Your task to perform on an android device: Go to notification settings Image 0: 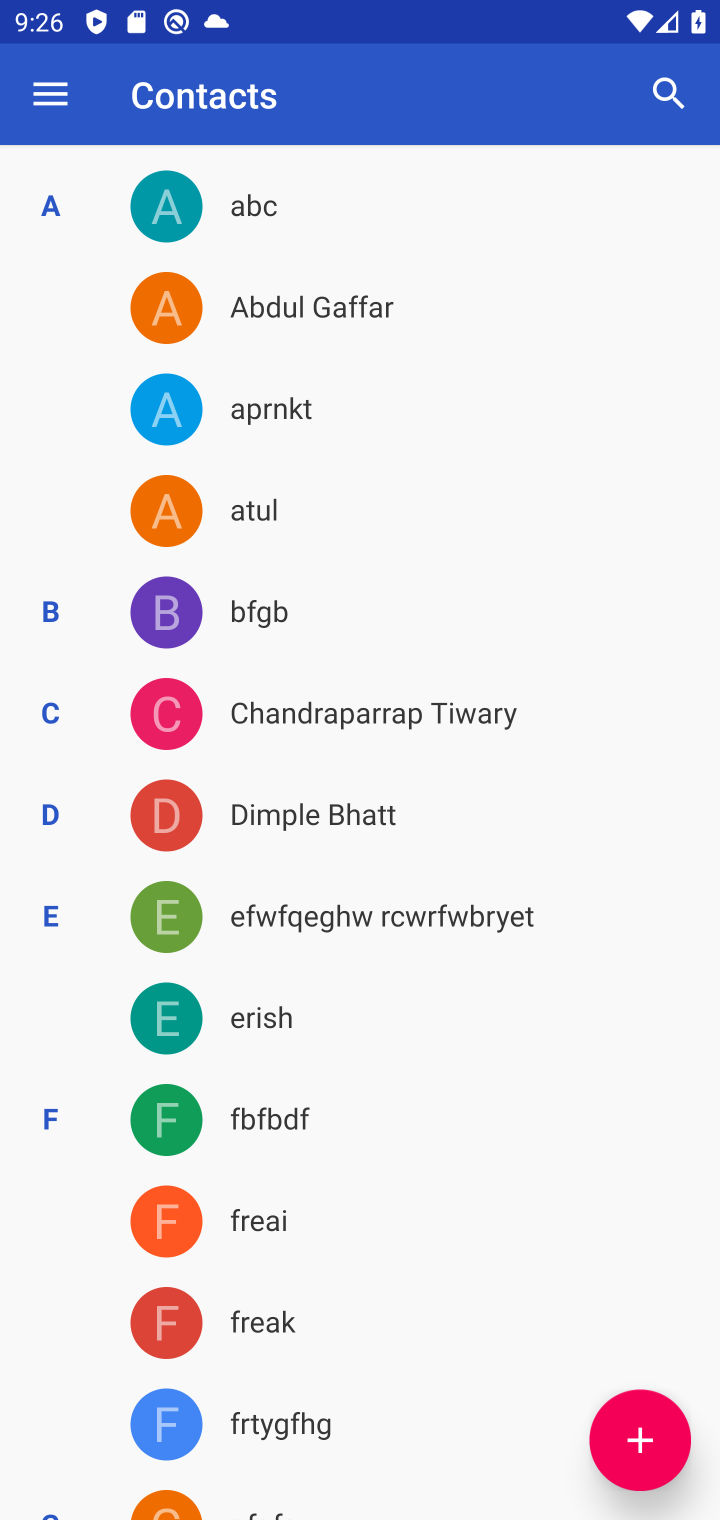
Step 0: press home button
Your task to perform on an android device: Go to notification settings Image 1: 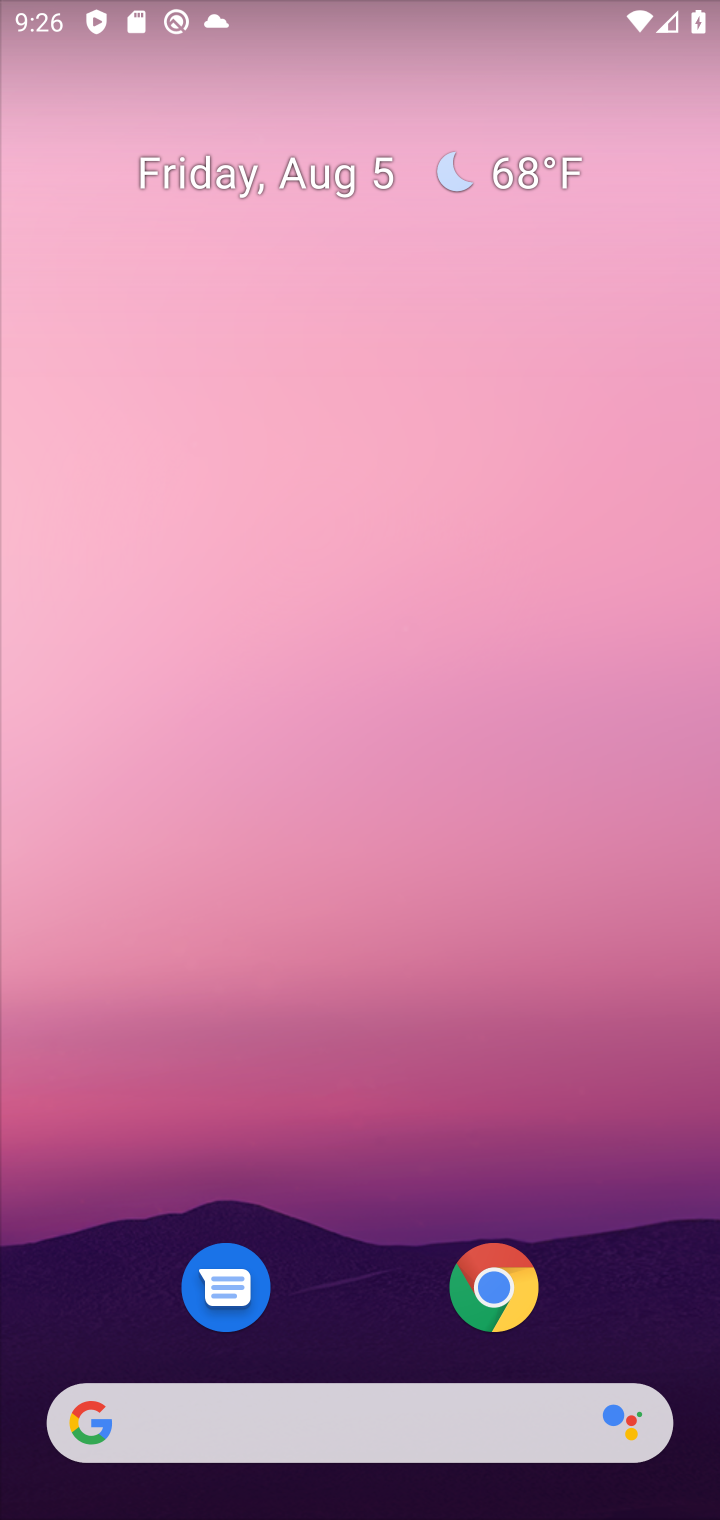
Step 1: drag from (358, 1303) to (460, 211)
Your task to perform on an android device: Go to notification settings Image 2: 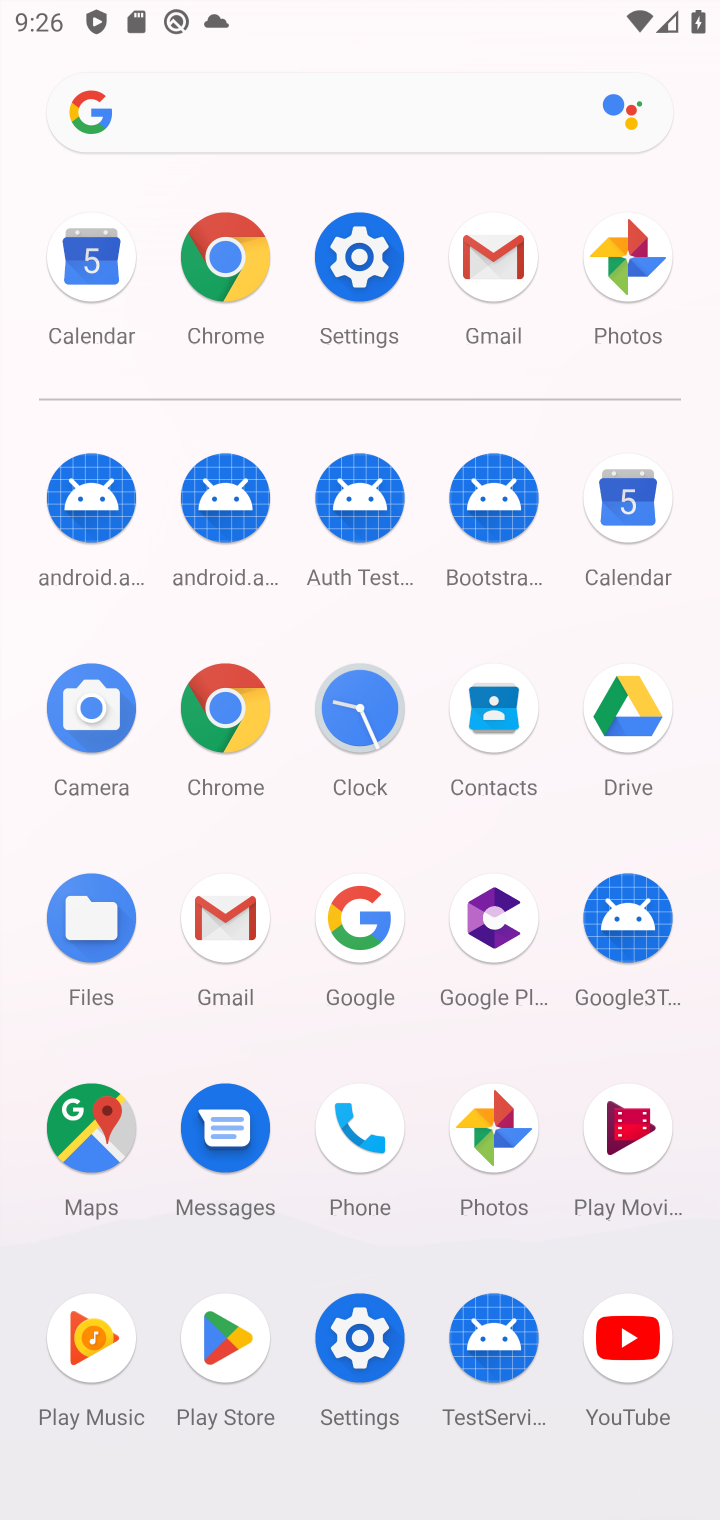
Step 2: click (361, 248)
Your task to perform on an android device: Go to notification settings Image 3: 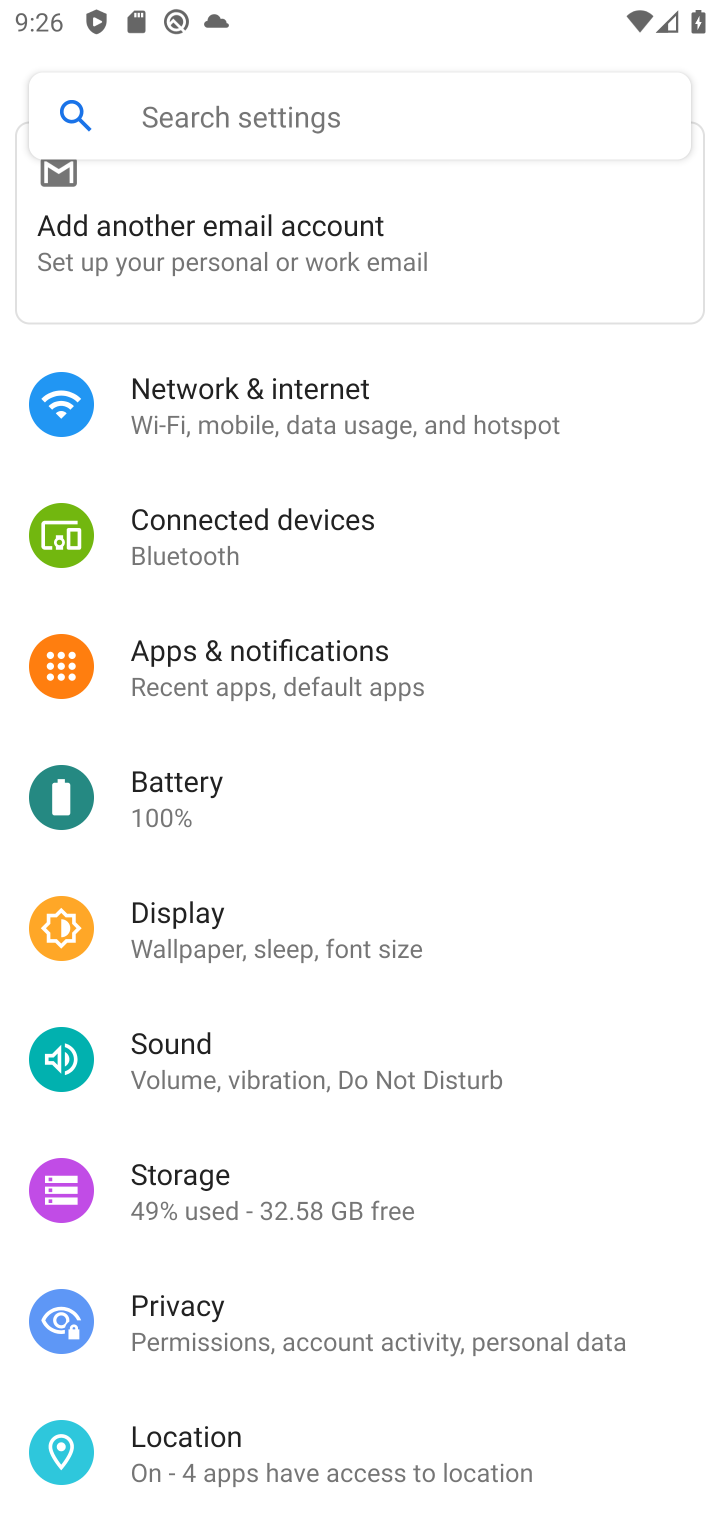
Step 3: click (310, 659)
Your task to perform on an android device: Go to notification settings Image 4: 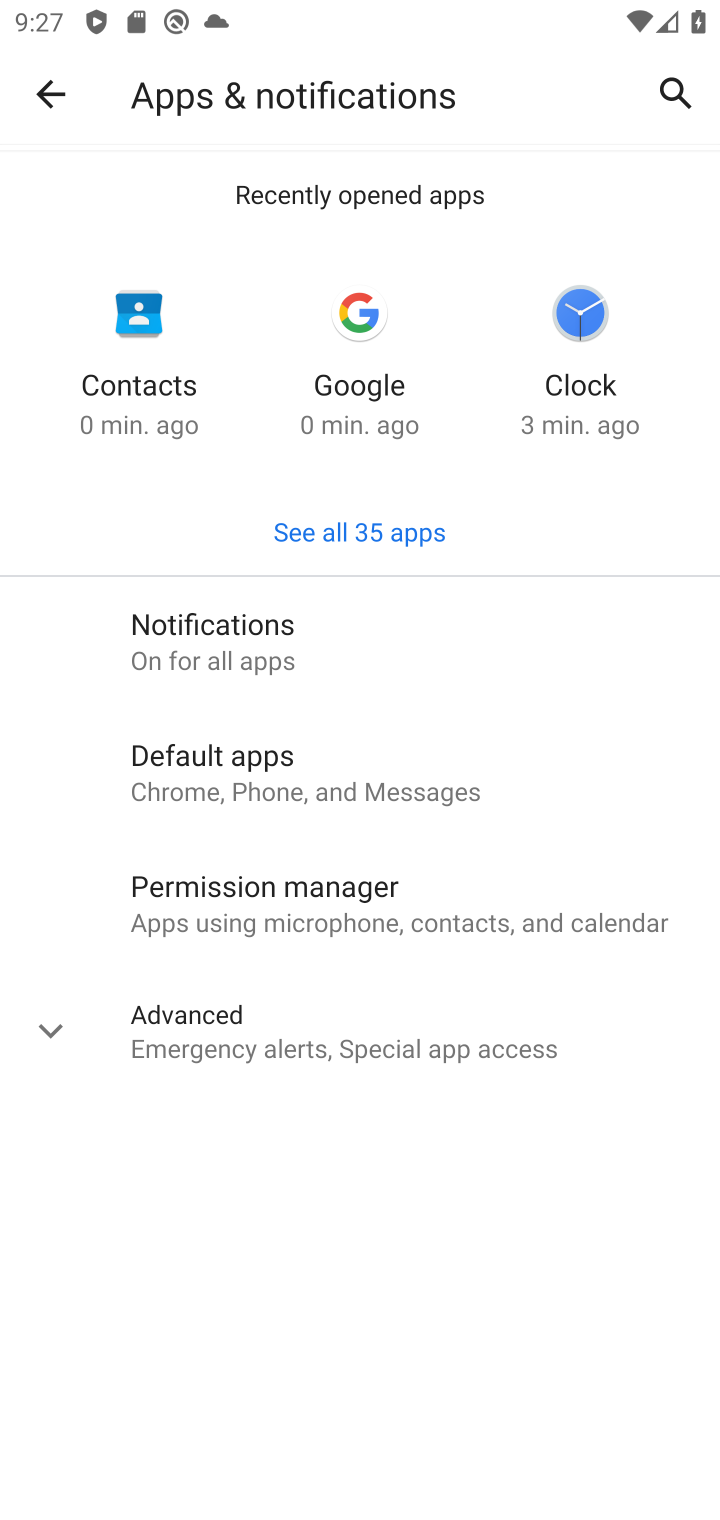
Step 4: click (183, 633)
Your task to perform on an android device: Go to notification settings Image 5: 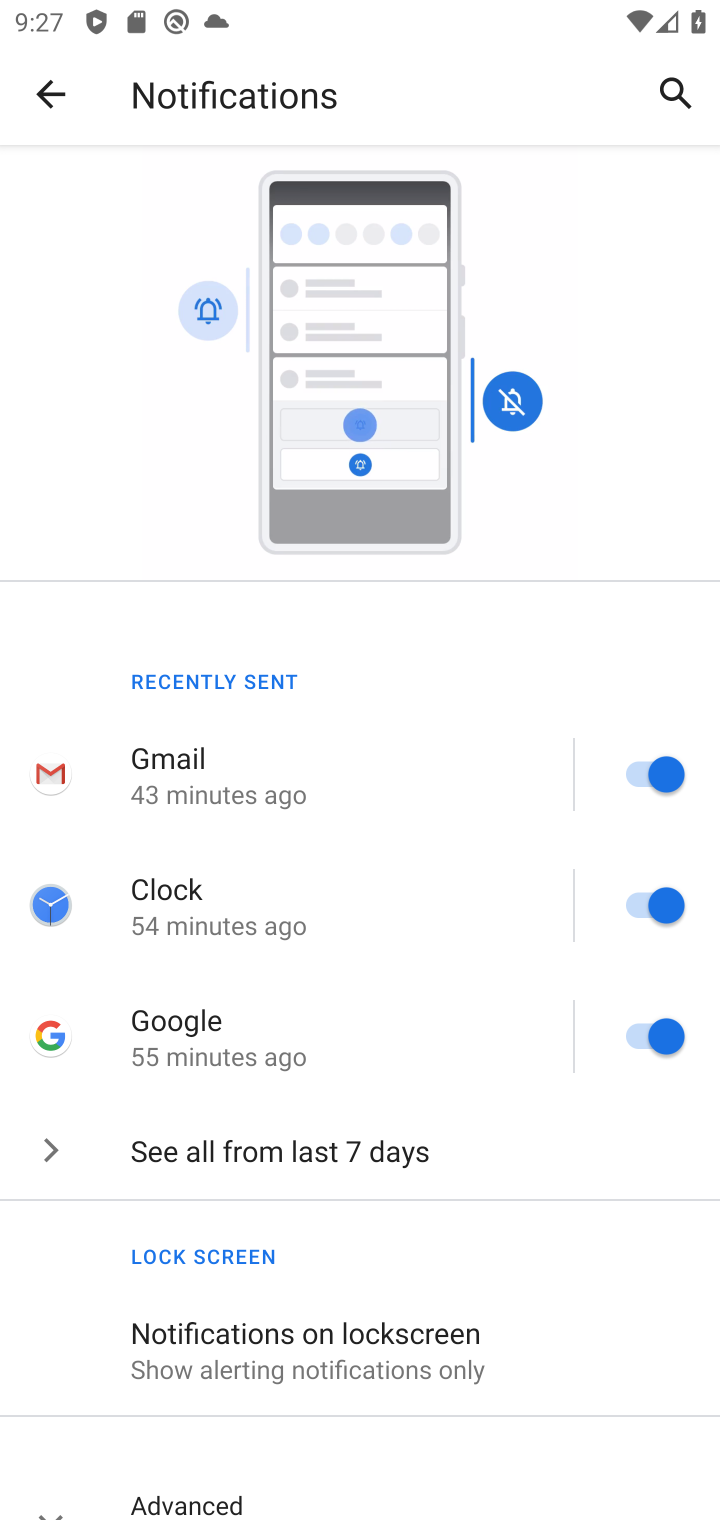
Step 5: task complete